Your task to perform on an android device: turn on notifications settings in the gmail app Image 0: 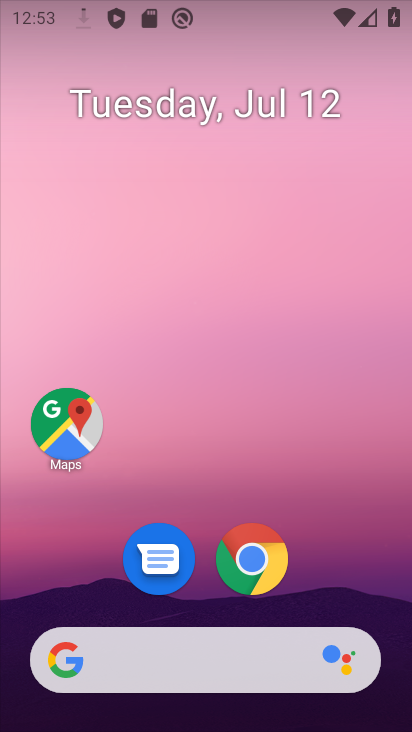
Step 0: drag from (342, 584) to (353, 137)
Your task to perform on an android device: turn on notifications settings in the gmail app Image 1: 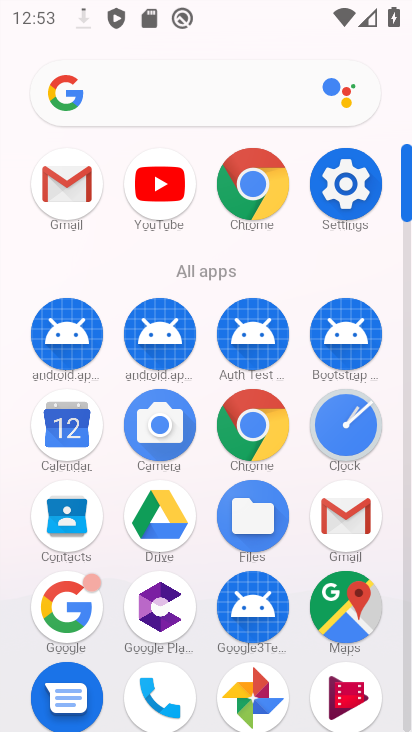
Step 1: click (354, 523)
Your task to perform on an android device: turn on notifications settings in the gmail app Image 2: 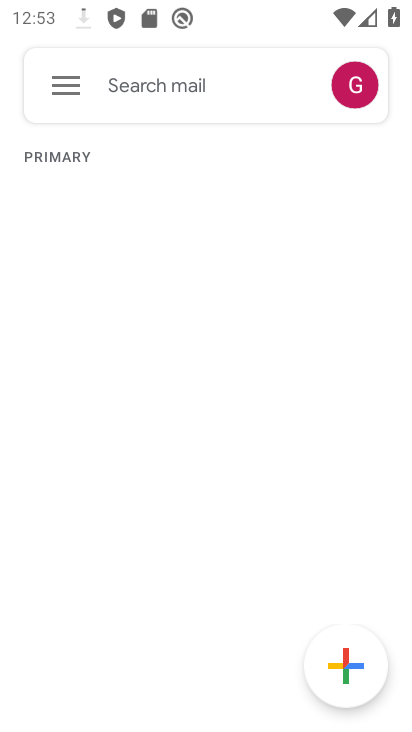
Step 2: click (62, 85)
Your task to perform on an android device: turn on notifications settings in the gmail app Image 3: 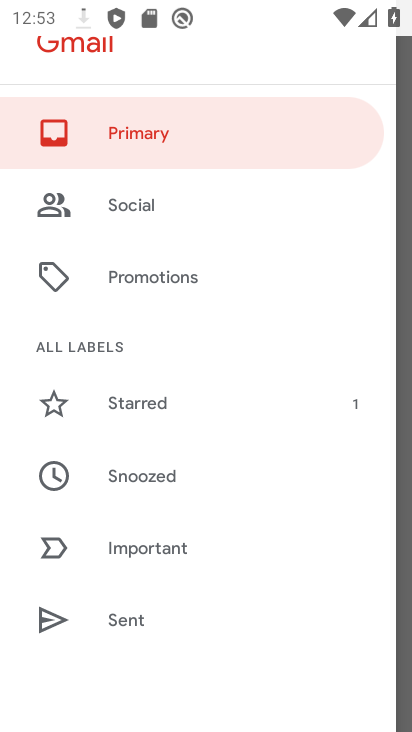
Step 3: drag from (259, 554) to (271, 334)
Your task to perform on an android device: turn on notifications settings in the gmail app Image 4: 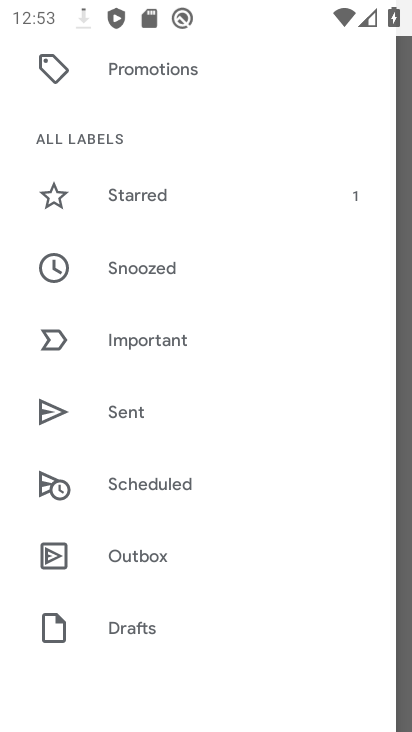
Step 4: drag from (273, 587) to (285, 341)
Your task to perform on an android device: turn on notifications settings in the gmail app Image 5: 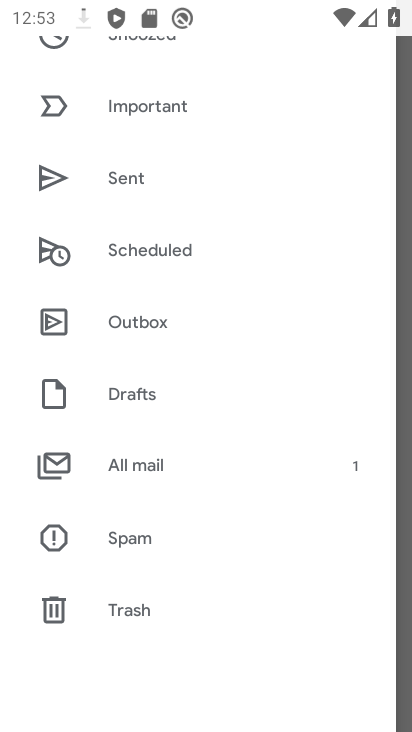
Step 5: drag from (274, 597) to (285, 249)
Your task to perform on an android device: turn on notifications settings in the gmail app Image 6: 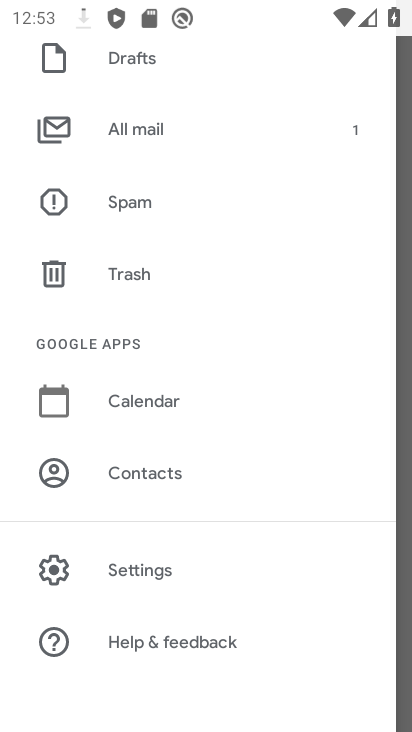
Step 6: drag from (271, 618) to (301, 385)
Your task to perform on an android device: turn on notifications settings in the gmail app Image 7: 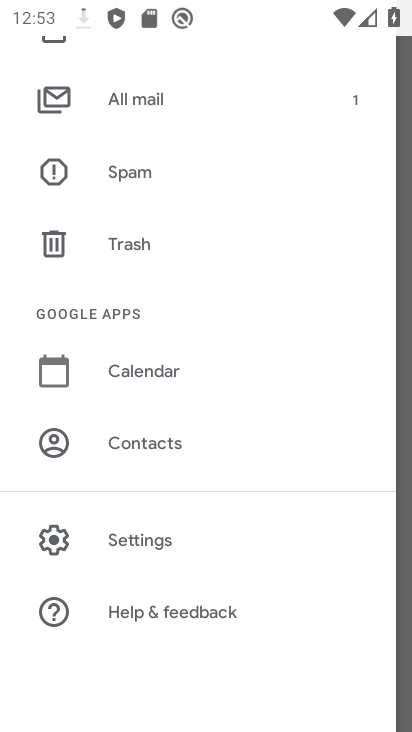
Step 7: drag from (280, 230) to (305, 404)
Your task to perform on an android device: turn on notifications settings in the gmail app Image 8: 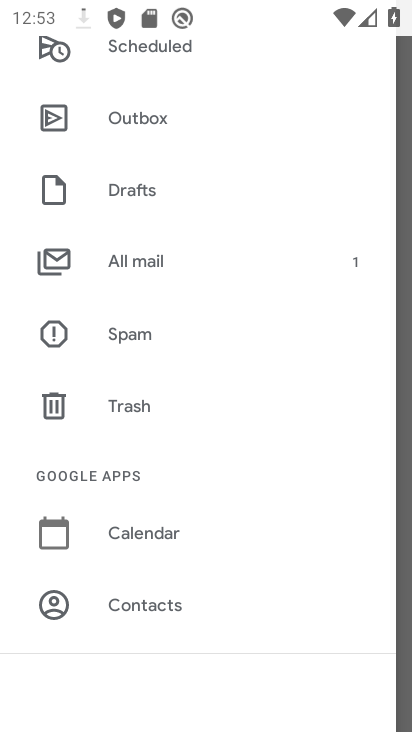
Step 8: drag from (271, 631) to (269, 392)
Your task to perform on an android device: turn on notifications settings in the gmail app Image 9: 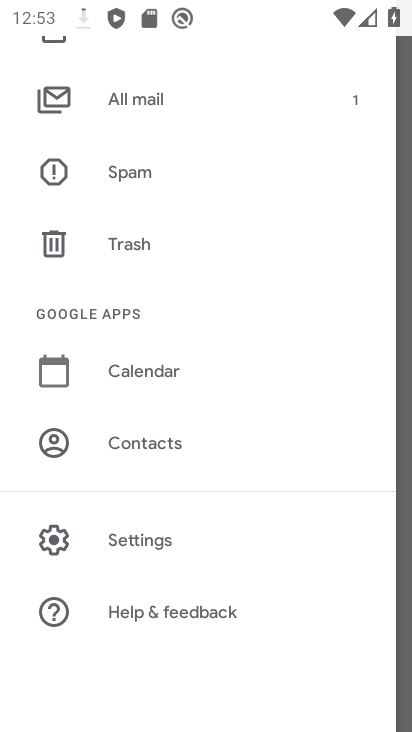
Step 9: click (168, 549)
Your task to perform on an android device: turn on notifications settings in the gmail app Image 10: 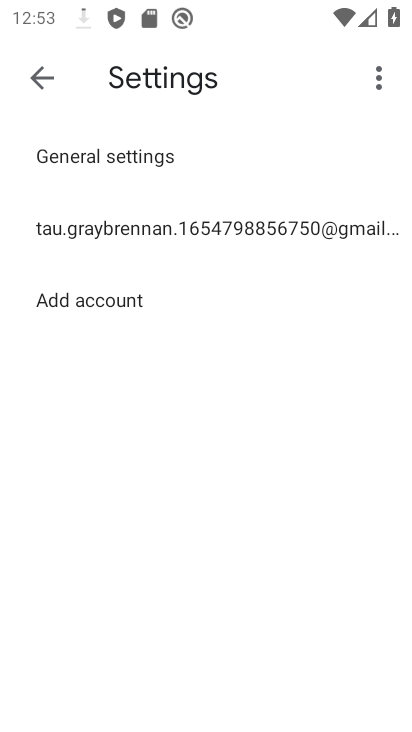
Step 10: click (230, 237)
Your task to perform on an android device: turn on notifications settings in the gmail app Image 11: 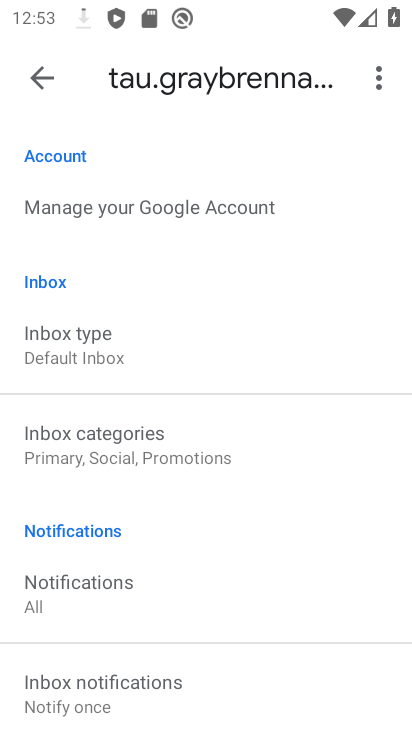
Step 11: drag from (291, 522) to (305, 320)
Your task to perform on an android device: turn on notifications settings in the gmail app Image 12: 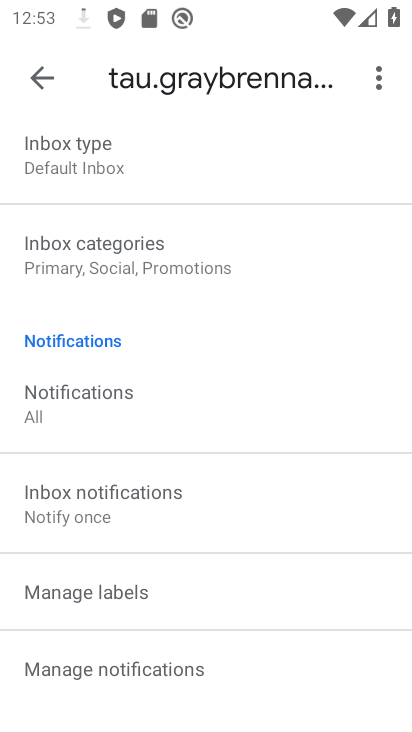
Step 12: drag from (282, 579) to (294, 330)
Your task to perform on an android device: turn on notifications settings in the gmail app Image 13: 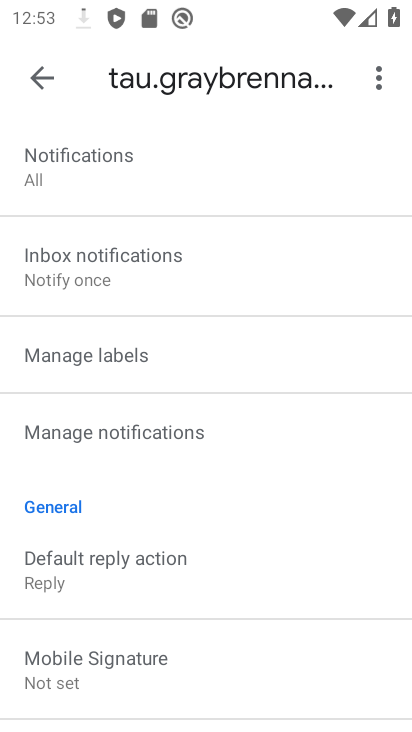
Step 13: drag from (310, 604) to (342, 395)
Your task to perform on an android device: turn on notifications settings in the gmail app Image 14: 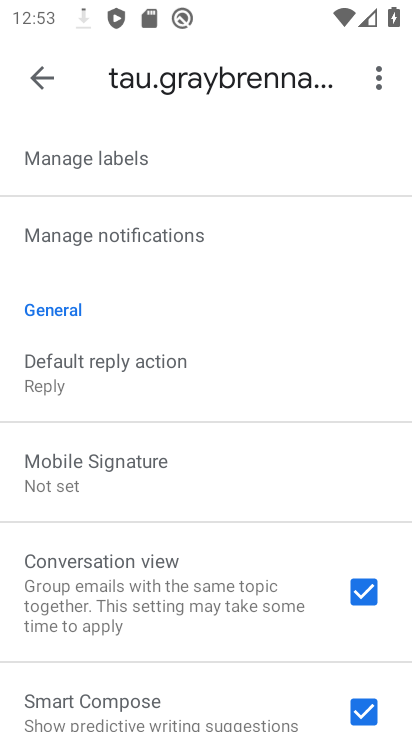
Step 14: drag from (268, 638) to (283, 367)
Your task to perform on an android device: turn on notifications settings in the gmail app Image 15: 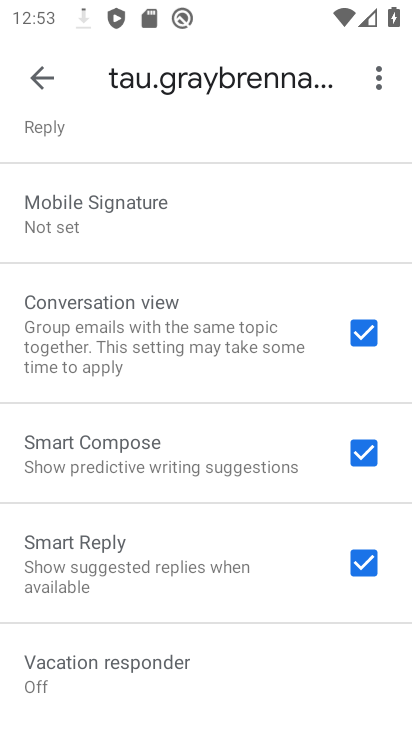
Step 15: drag from (279, 636) to (283, 471)
Your task to perform on an android device: turn on notifications settings in the gmail app Image 16: 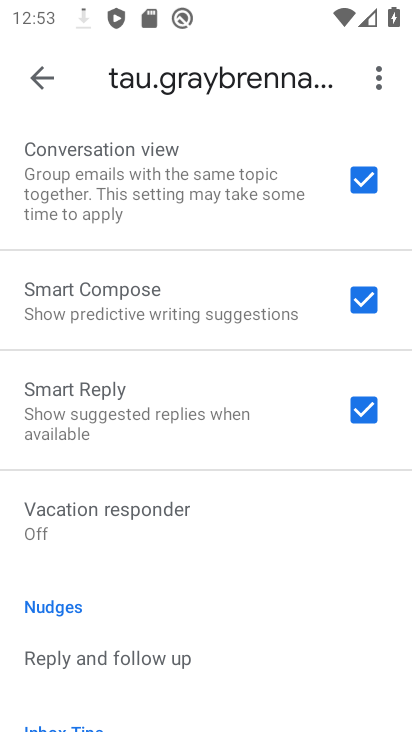
Step 16: drag from (259, 602) to (272, 349)
Your task to perform on an android device: turn on notifications settings in the gmail app Image 17: 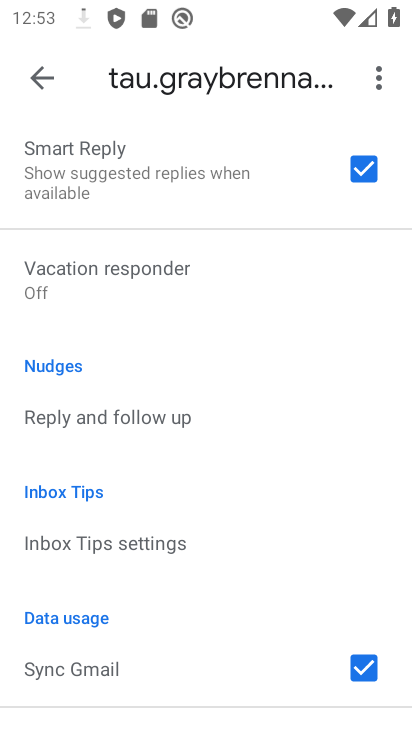
Step 17: drag from (239, 566) to (239, 350)
Your task to perform on an android device: turn on notifications settings in the gmail app Image 18: 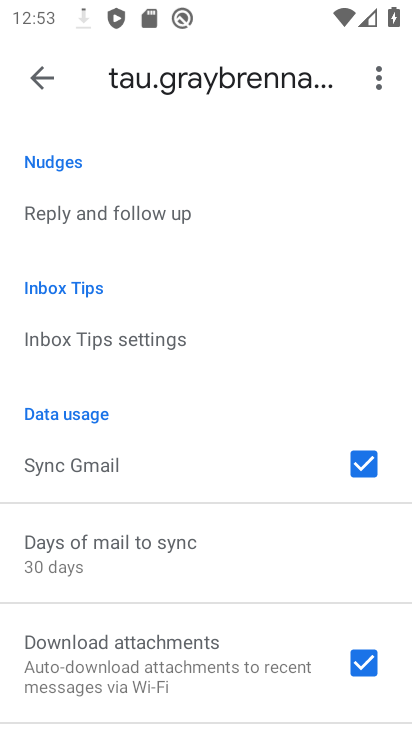
Step 18: drag from (255, 228) to (257, 426)
Your task to perform on an android device: turn on notifications settings in the gmail app Image 19: 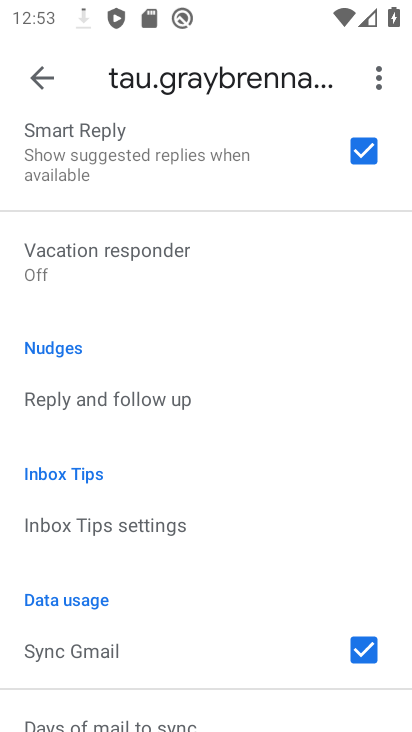
Step 19: drag from (250, 216) to (248, 422)
Your task to perform on an android device: turn on notifications settings in the gmail app Image 20: 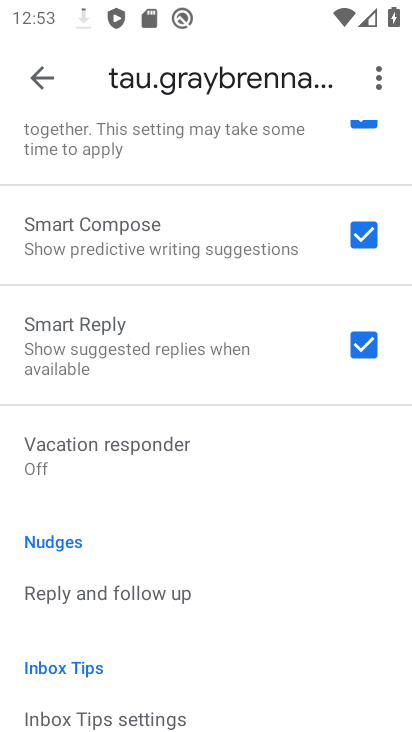
Step 20: drag from (232, 199) to (241, 431)
Your task to perform on an android device: turn on notifications settings in the gmail app Image 21: 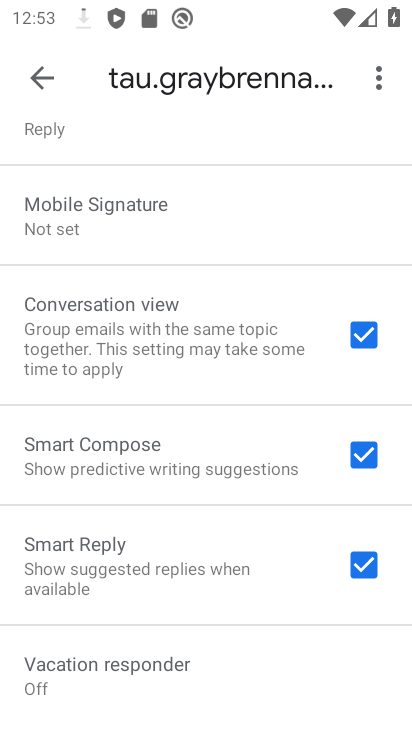
Step 21: drag from (241, 236) to (237, 446)
Your task to perform on an android device: turn on notifications settings in the gmail app Image 22: 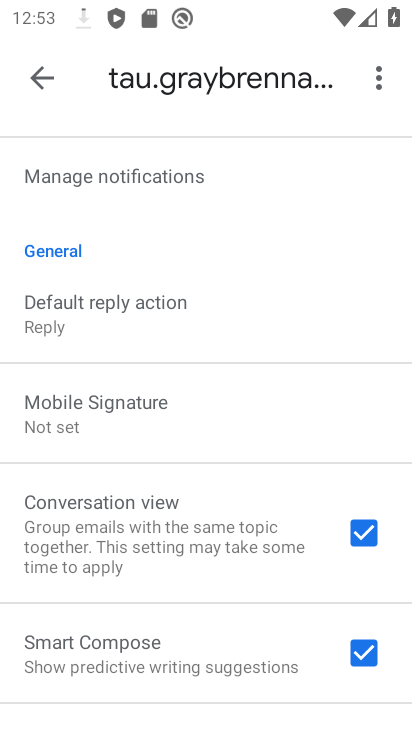
Step 22: drag from (222, 211) to (222, 346)
Your task to perform on an android device: turn on notifications settings in the gmail app Image 23: 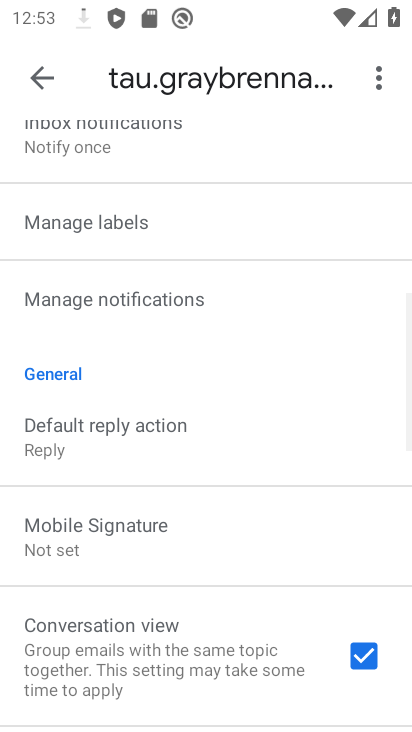
Step 23: click (188, 299)
Your task to perform on an android device: turn on notifications settings in the gmail app Image 24: 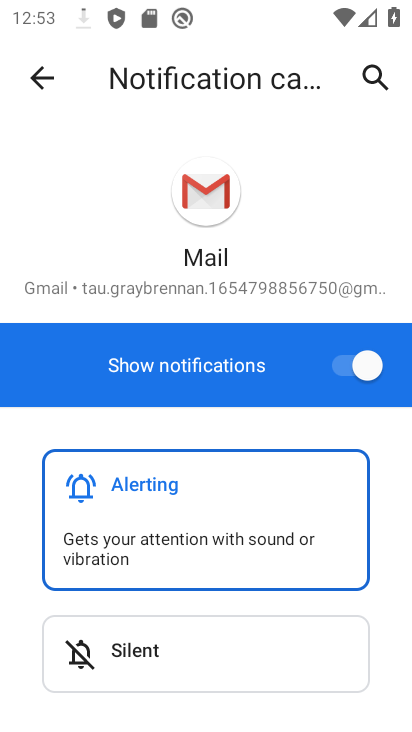
Step 24: task complete